Your task to perform on an android device: Open CNN.com Image 0: 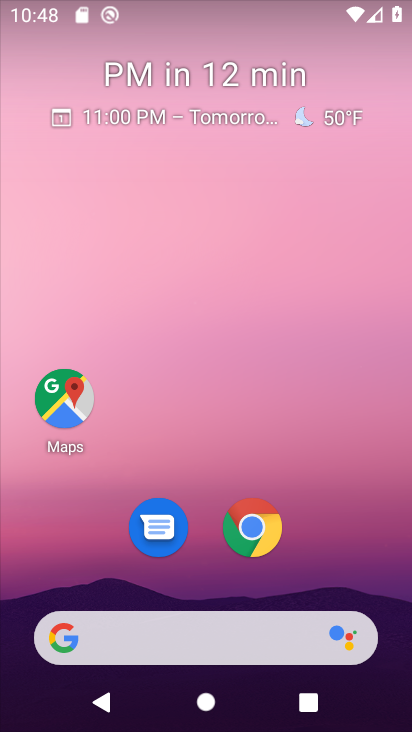
Step 0: click (272, 529)
Your task to perform on an android device: Open CNN.com Image 1: 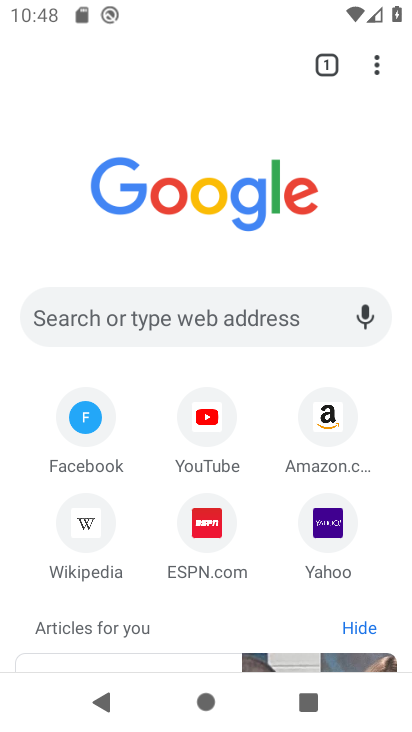
Step 1: click (250, 314)
Your task to perform on an android device: Open CNN.com Image 2: 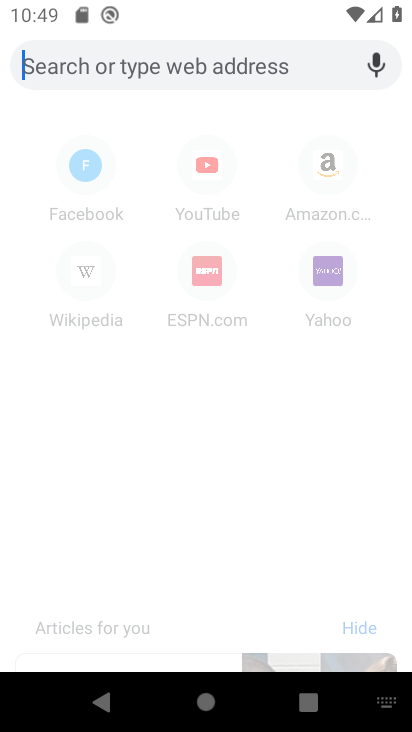
Step 2: type "cnn.com"
Your task to perform on an android device: Open CNN.com Image 3: 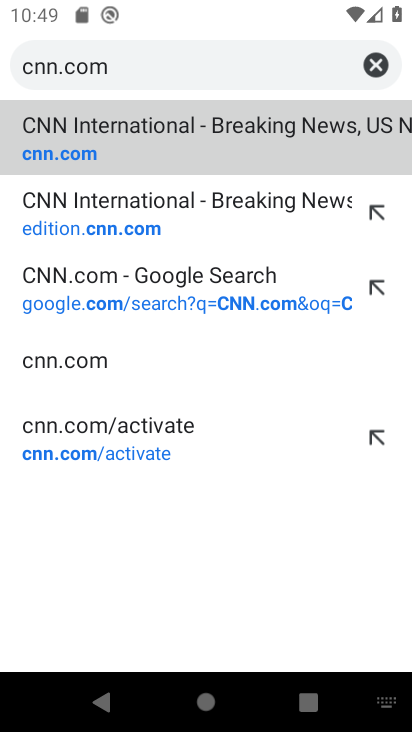
Step 3: click (300, 140)
Your task to perform on an android device: Open CNN.com Image 4: 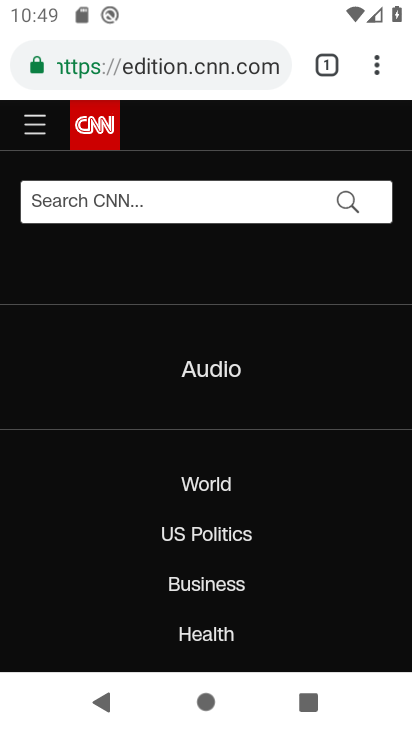
Step 4: task complete